Your task to perform on an android device: open chrome and create a bookmark for the current page Image 0: 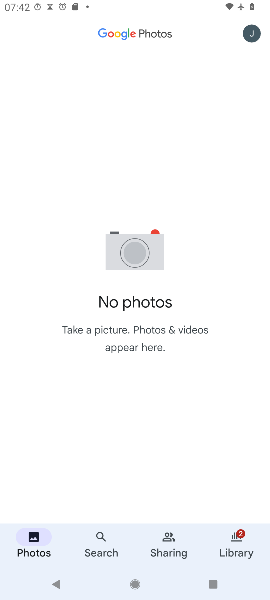
Step 0: press home button
Your task to perform on an android device: open chrome and create a bookmark for the current page Image 1: 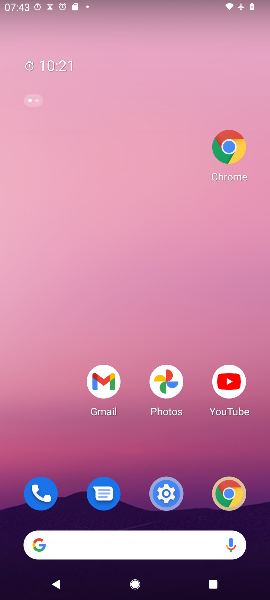
Step 1: click (199, 139)
Your task to perform on an android device: open chrome and create a bookmark for the current page Image 2: 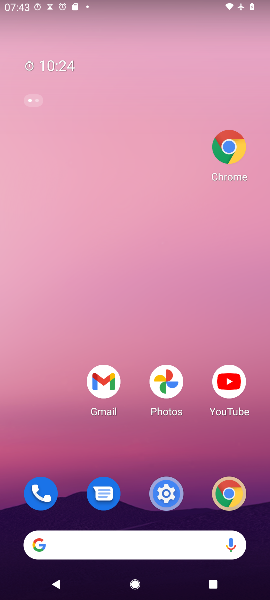
Step 2: click (234, 153)
Your task to perform on an android device: open chrome and create a bookmark for the current page Image 3: 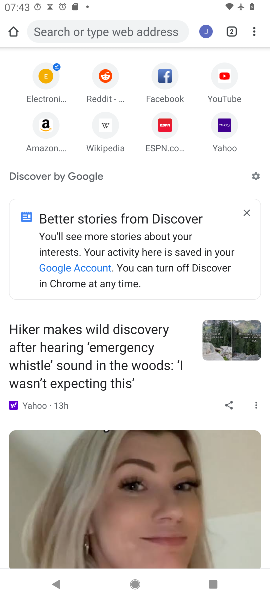
Step 3: task complete